Your task to perform on an android device: Go to display settings Image 0: 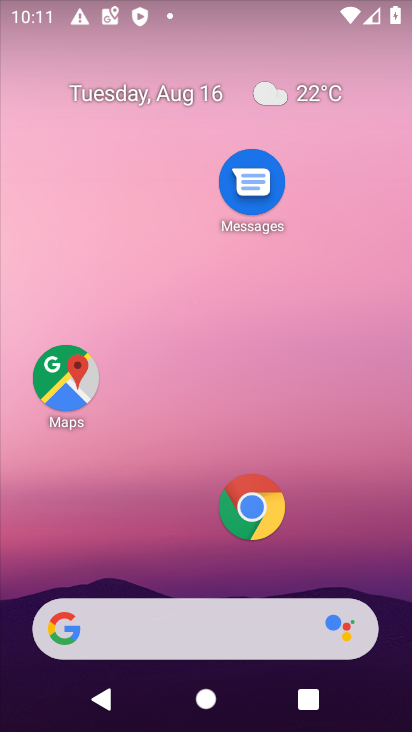
Step 0: drag from (176, 533) to (286, 50)
Your task to perform on an android device: Go to display settings Image 1: 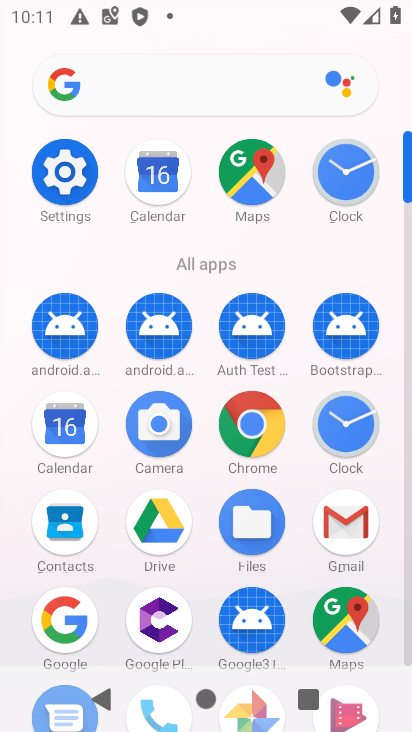
Step 1: click (53, 170)
Your task to perform on an android device: Go to display settings Image 2: 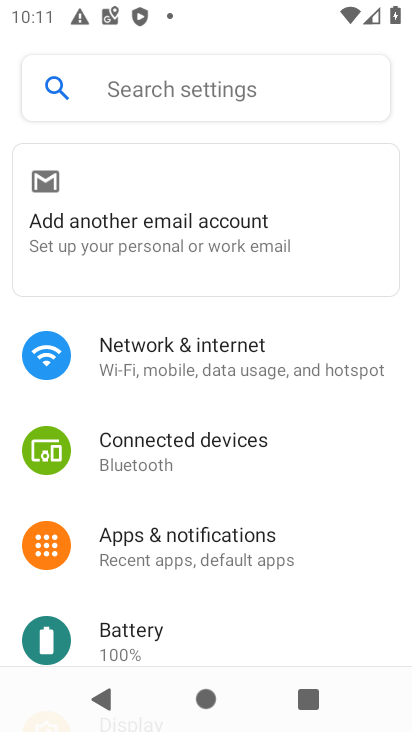
Step 2: drag from (226, 622) to (348, 124)
Your task to perform on an android device: Go to display settings Image 3: 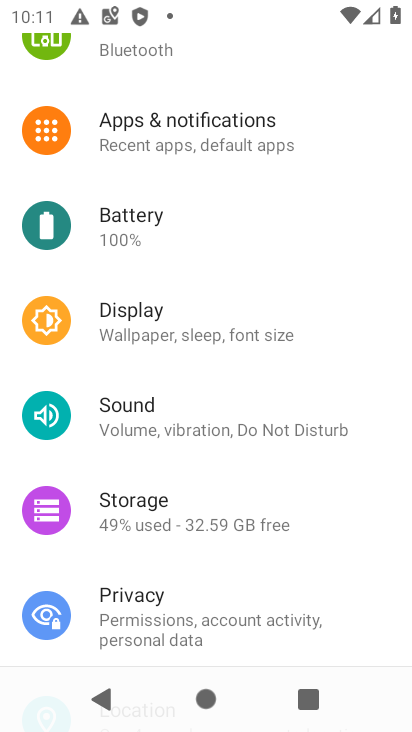
Step 3: click (169, 320)
Your task to perform on an android device: Go to display settings Image 4: 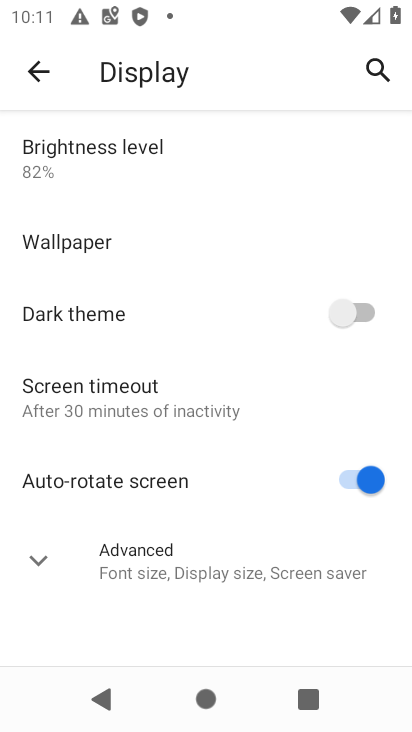
Step 4: task complete